Your task to perform on an android device: Open the phone app and click the voicemail tab. Image 0: 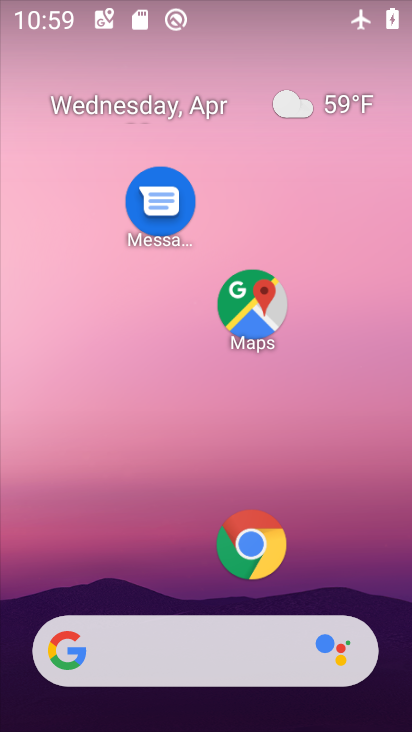
Step 0: drag from (187, 510) to (187, 160)
Your task to perform on an android device: Open the phone app and click the voicemail tab. Image 1: 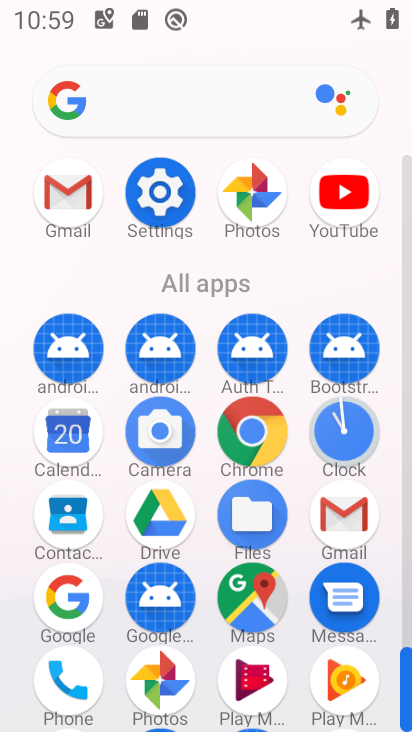
Step 1: drag from (208, 566) to (205, 203)
Your task to perform on an android device: Open the phone app and click the voicemail tab. Image 2: 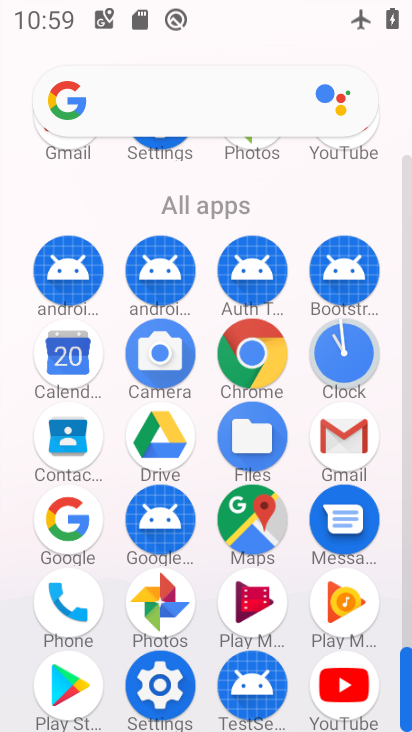
Step 2: drag from (217, 545) to (207, 282)
Your task to perform on an android device: Open the phone app and click the voicemail tab. Image 3: 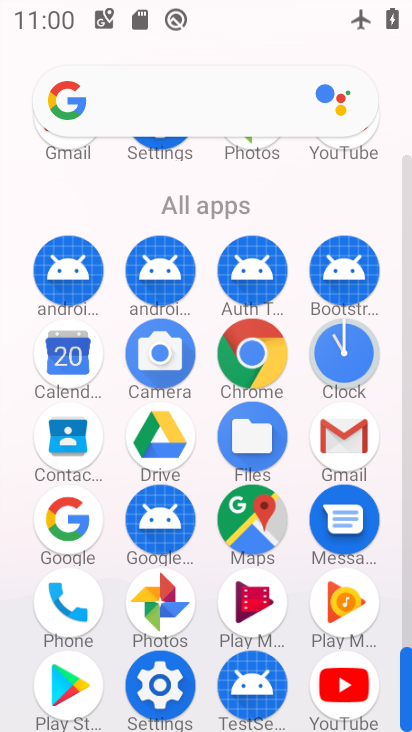
Step 3: drag from (204, 496) to (212, 183)
Your task to perform on an android device: Open the phone app and click the voicemail tab. Image 4: 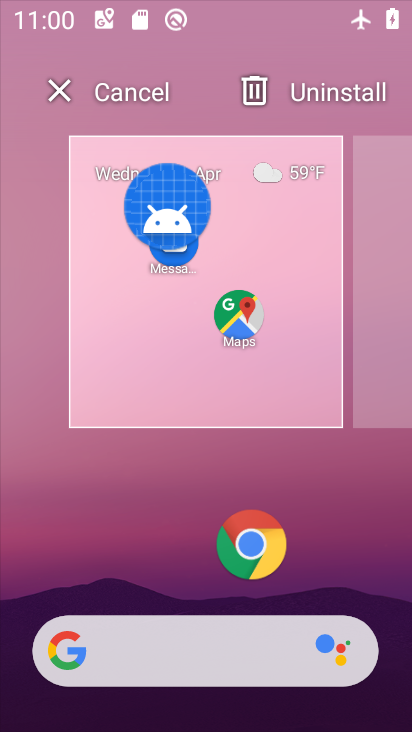
Step 4: click (68, 611)
Your task to perform on an android device: Open the phone app and click the voicemail tab. Image 5: 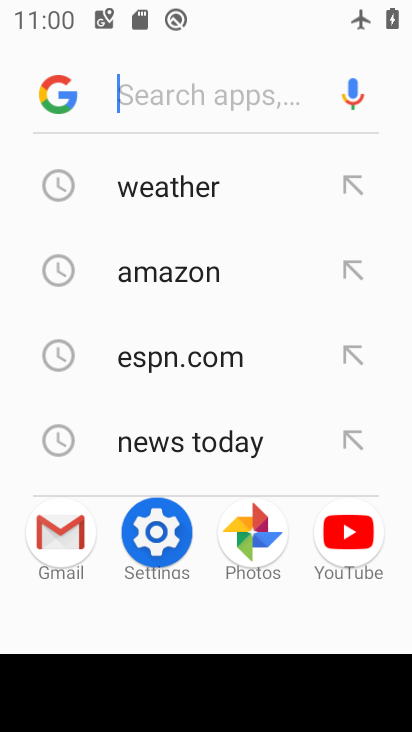
Step 5: press home button
Your task to perform on an android device: Open the phone app and click the voicemail tab. Image 6: 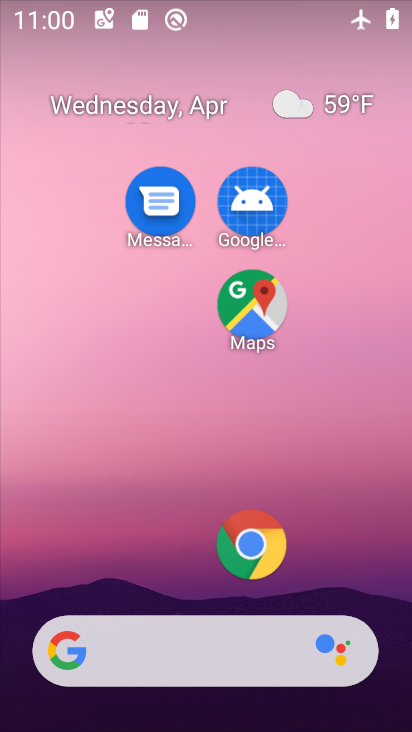
Step 6: drag from (162, 385) to (164, 138)
Your task to perform on an android device: Open the phone app and click the voicemail tab. Image 7: 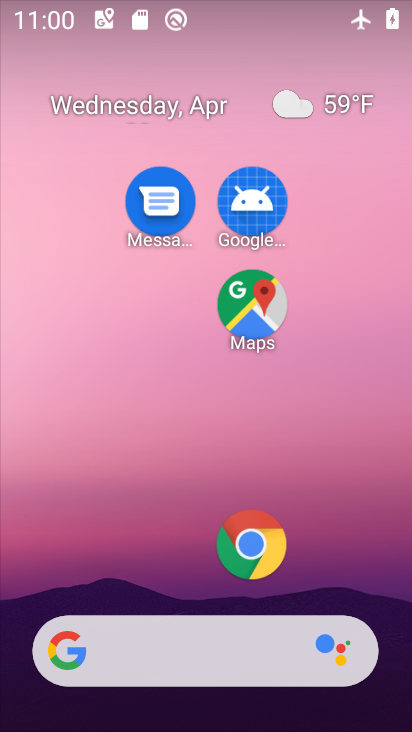
Step 7: drag from (193, 560) to (218, 165)
Your task to perform on an android device: Open the phone app and click the voicemail tab. Image 8: 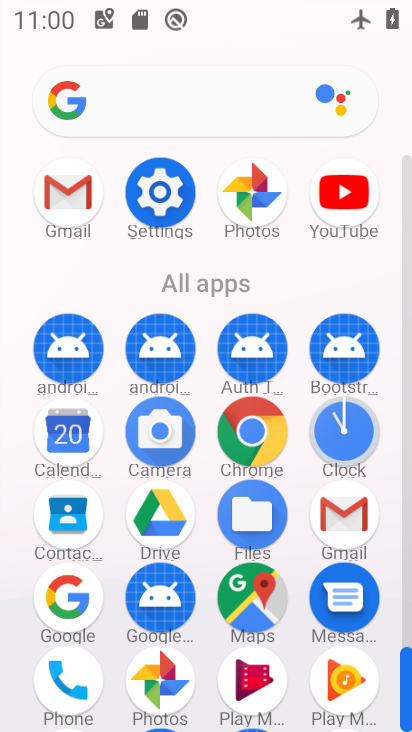
Step 8: click (60, 671)
Your task to perform on an android device: Open the phone app and click the voicemail tab. Image 9: 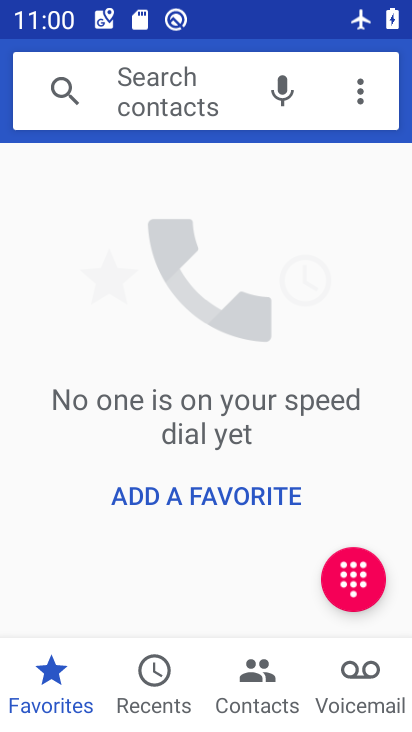
Step 9: click (327, 677)
Your task to perform on an android device: Open the phone app and click the voicemail tab. Image 10: 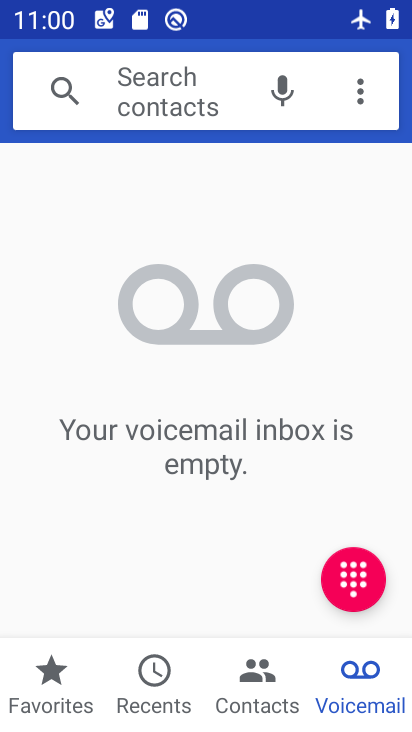
Step 10: task complete